Your task to perform on an android device: Open Youtube and go to the subscriptions tab Image 0: 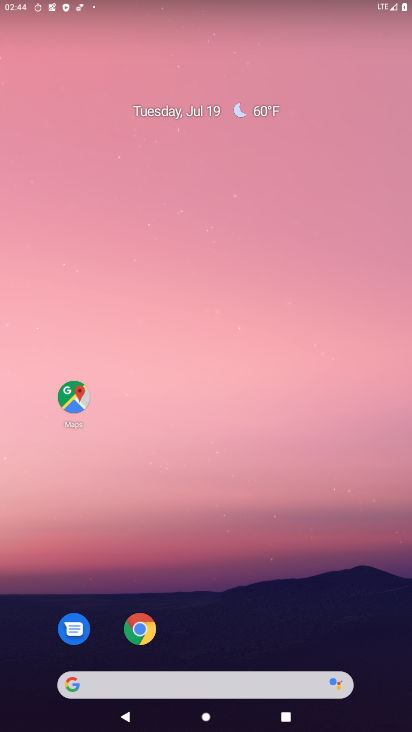
Step 0: drag from (192, 622) to (183, 204)
Your task to perform on an android device: Open Youtube and go to the subscriptions tab Image 1: 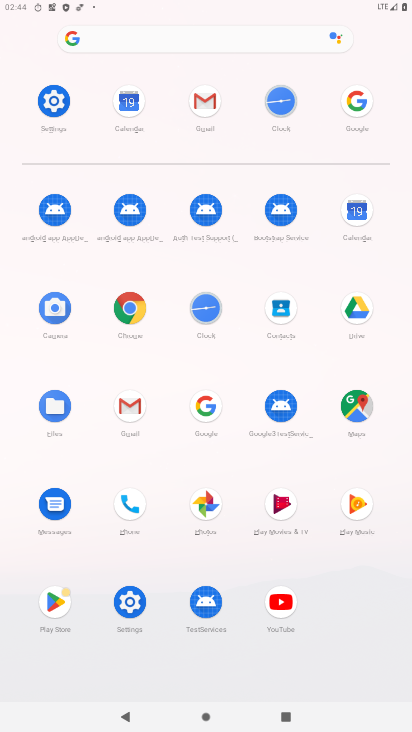
Step 1: click (288, 603)
Your task to perform on an android device: Open Youtube and go to the subscriptions tab Image 2: 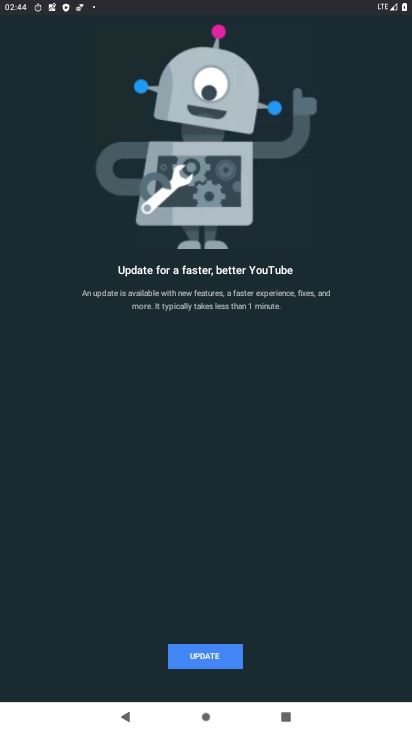
Step 2: click (211, 656)
Your task to perform on an android device: Open Youtube and go to the subscriptions tab Image 3: 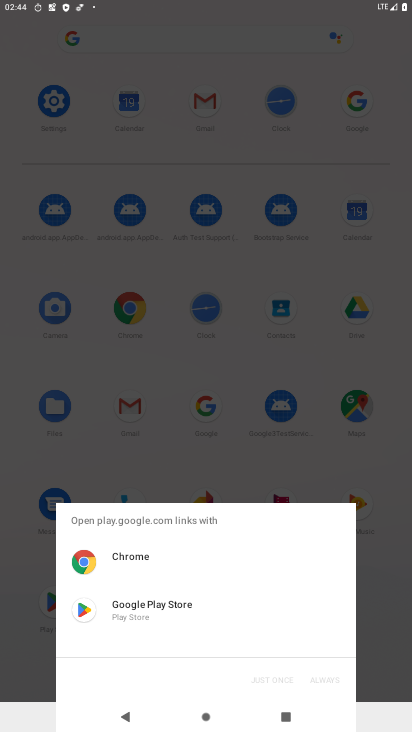
Step 3: click (194, 605)
Your task to perform on an android device: Open Youtube and go to the subscriptions tab Image 4: 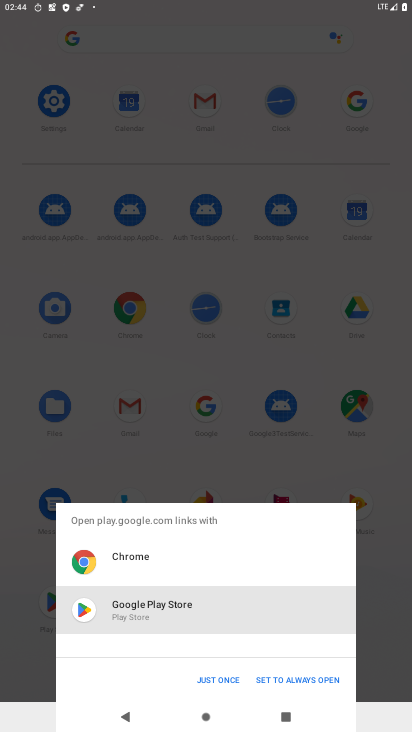
Step 4: click (217, 671)
Your task to perform on an android device: Open Youtube and go to the subscriptions tab Image 5: 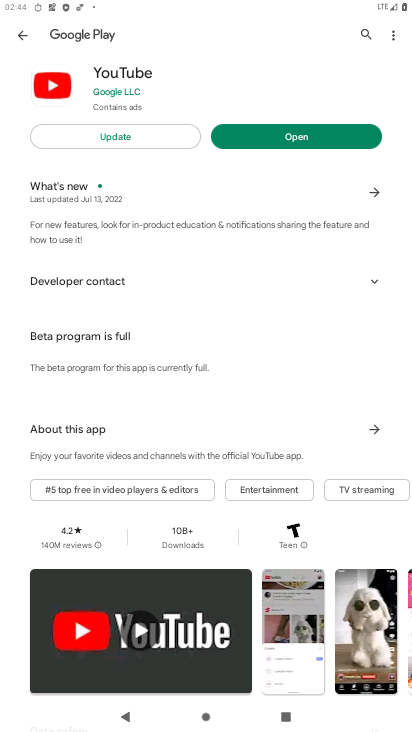
Step 5: click (151, 128)
Your task to perform on an android device: Open Youtube and go to the subscriptions tab Image 6: 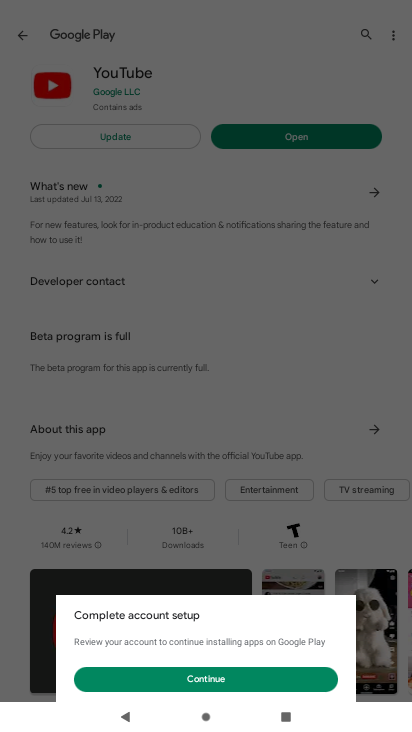
Step 6: click (230, 684)
Your task to perform on an android device: Open Youtube and go to the subscriptions tab Image 7: 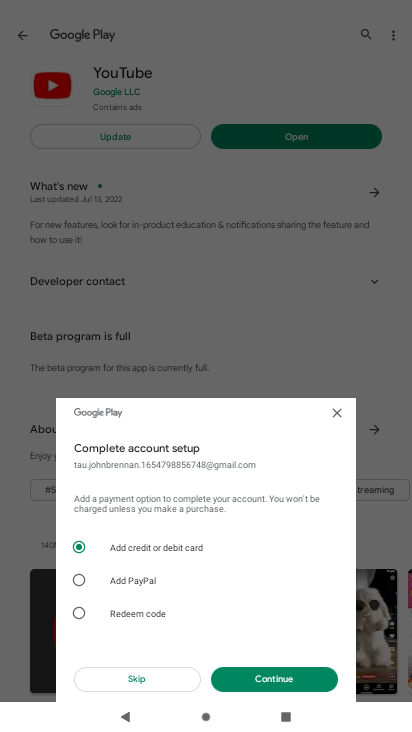
Step 7: click (176, 278)
Your task to perform on an android device: Open Youtube and go to the subscriptions tab Image 8: 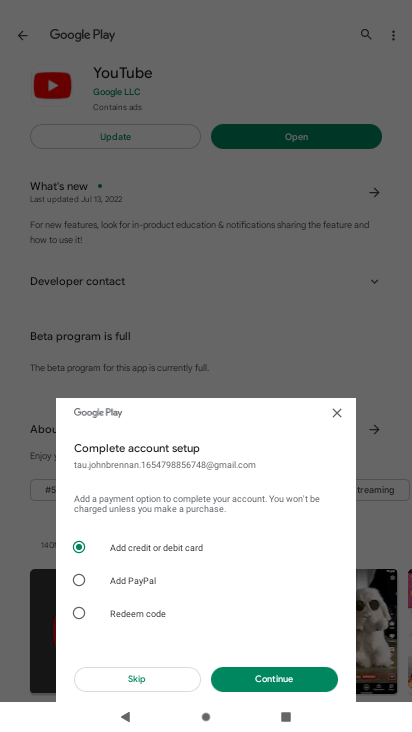
Step 8: click (144, 678)
Your task to perform on an android device: Open Youtube and go to the subscriptions tab Image 9: 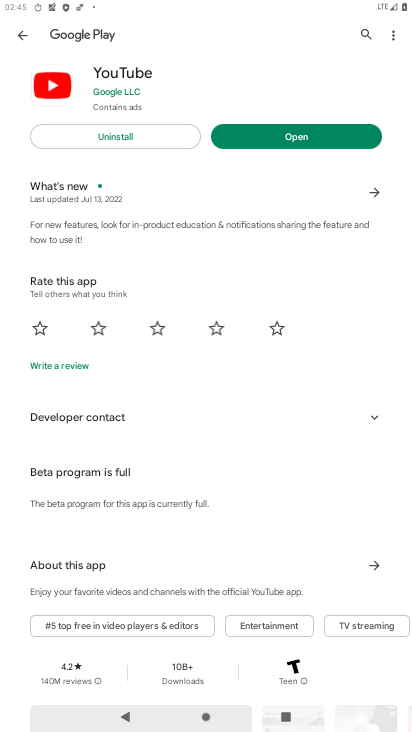
Step 9: click (277, 143)
Your task to perform on an android device: Open Youtube and go to the subscriptions tab Image 10: 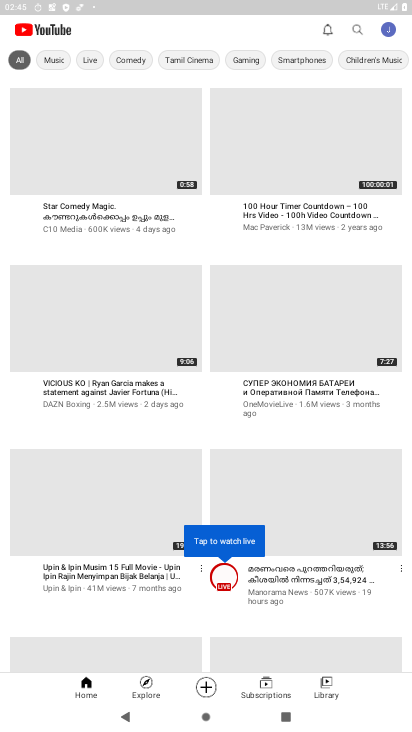
Step 10: click (262, 688)
Your task to perform on an android device: Open Youtube and go to the subscriptions tab Image 11: 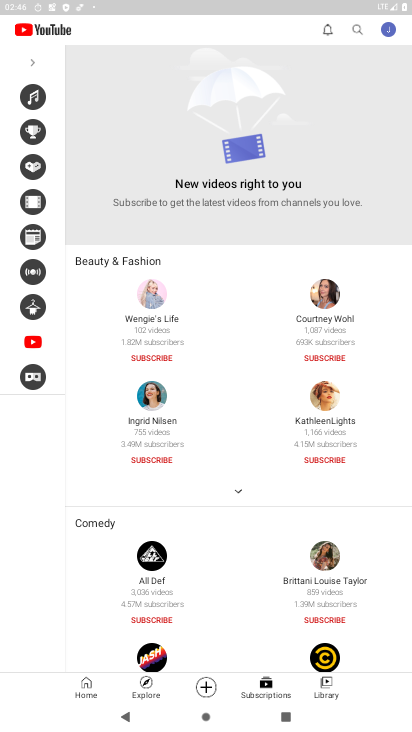
Step 11: task complete